Your task to perform on an android device: change the clock display to digital Image 0: 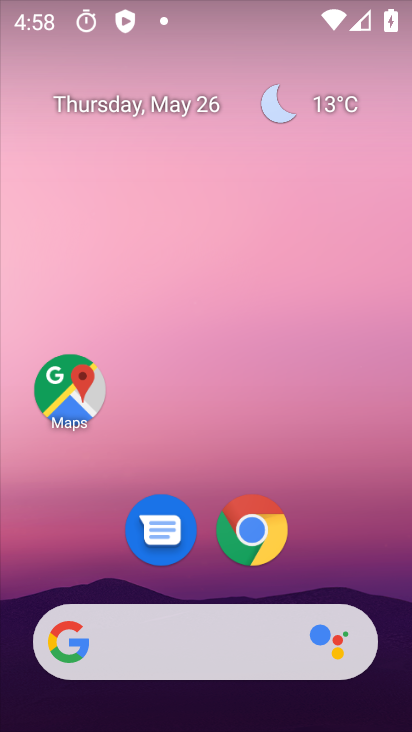
Step 0: drag from (175, 639) to (407, 218)
Your task to perform on an android device: change the clock display to digital Image 1: 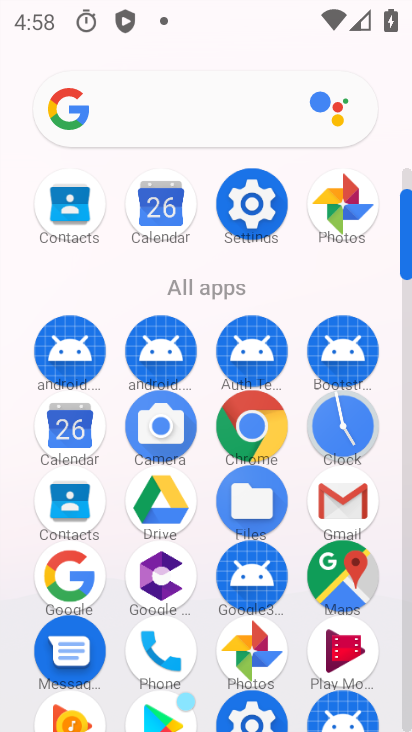
Step 1: click (337, 422)
Your task to perform on an android device: change the clock display to digital Image 2: 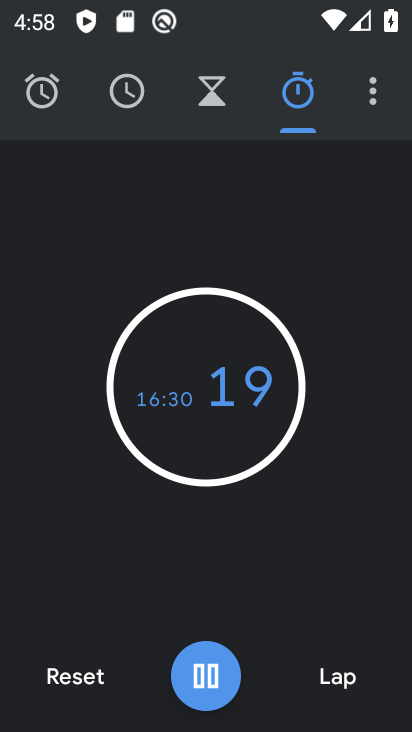
Step 2: click (372, 90)
Your task to perform on an android device: change the clock display to digital Image 3: 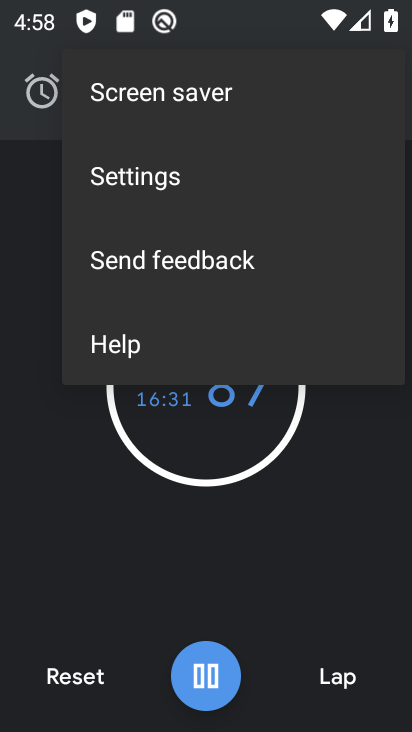
Step 3: click (220, 176)
Your task to perform on an android device: change the clock display to digital Image 4: 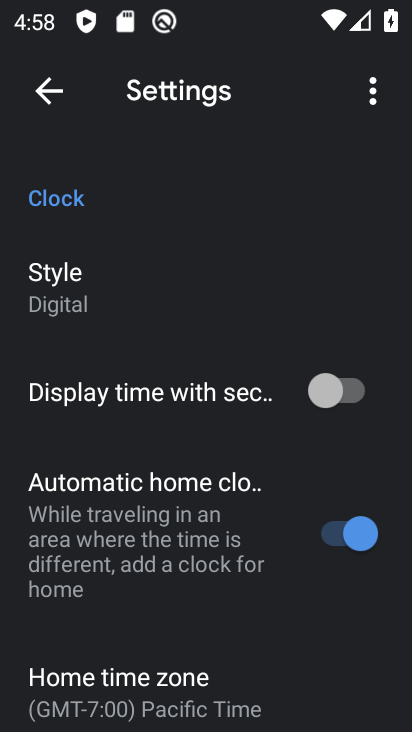
Step 4: click (91, 278)
Your task to perform on an android device: change the clock display to digital Image 5: 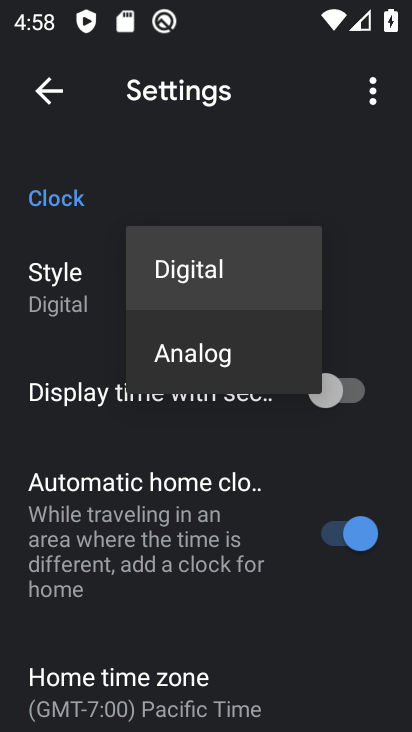
Step 5: click (204, 360)
Your task to perform on an android device: change the clock display to digital Image 6: 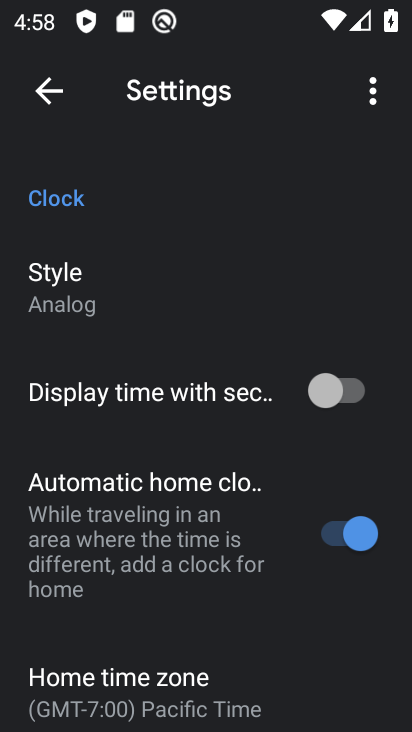
Step 6: task complete